Your task to perform on an android device: Go to wifi settings Image 0: 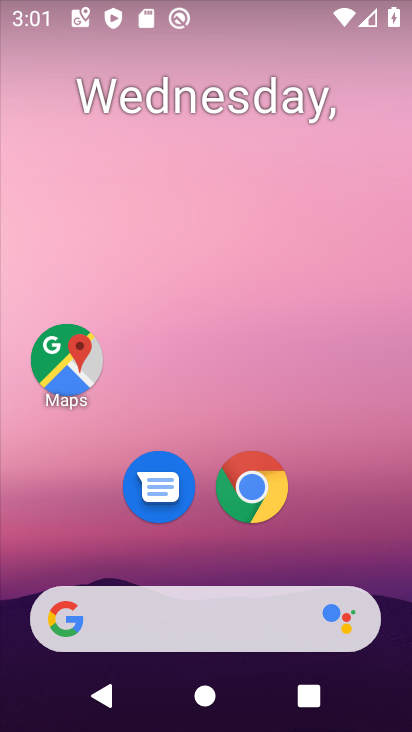
Step 0: drag from (345, 502) to (259, 38)
Your task to perform on an android device: Go to wifi settings Image 1: 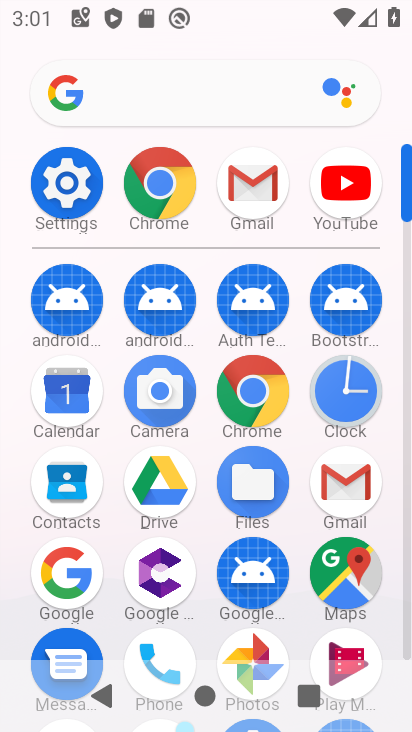
Step 1: click (73, 185)
Your task to perform on an android device: Go to wifi settings Image 2: 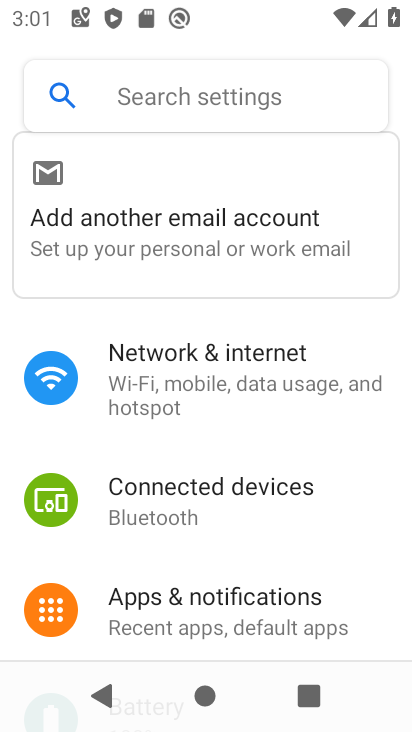
Step 2: click (259, 366)
Your task to perform on an android device: Go to wifi settings Image 3: 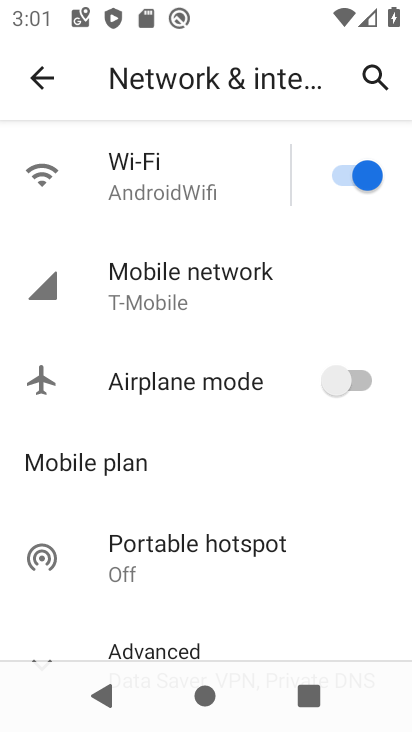
Step 3: click (197, 179)
Your task to perform on an android device: Go to wifi settings Image 4: 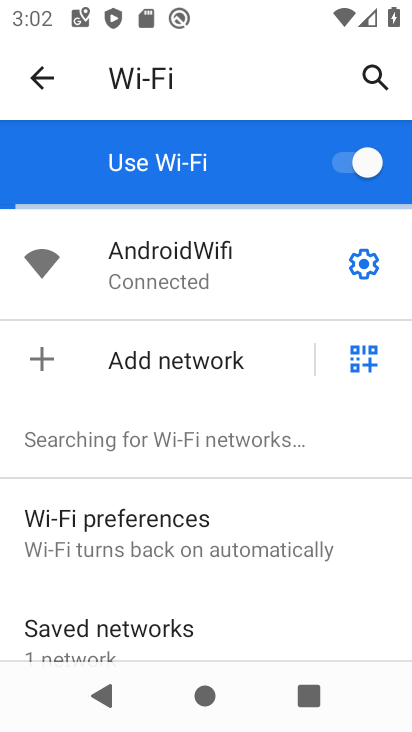
Step 4: task complete